Your task to perform on an android device: create a new album in the google photos Image 0: 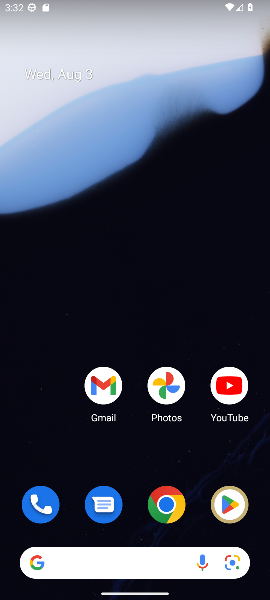
Step 0: click (168, 401)
Your task to perform on an android device: create a new album in the google photos Image 1: 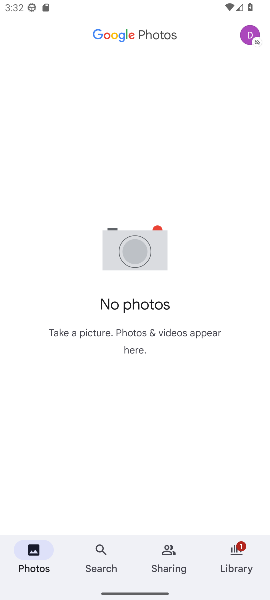
Step 1: click (233, 557)
Your task to perform on an android device: create a new album in the google photos Image 2: 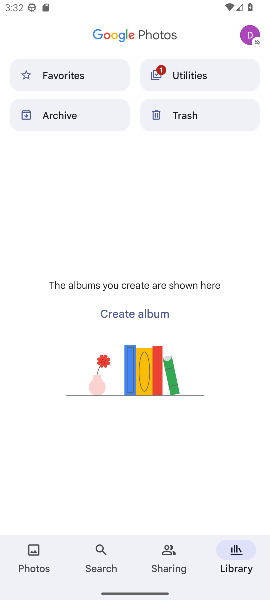
Step 2: click (141, 316)
Your task to perform on an android device: create a new album in the google photos Image 3: 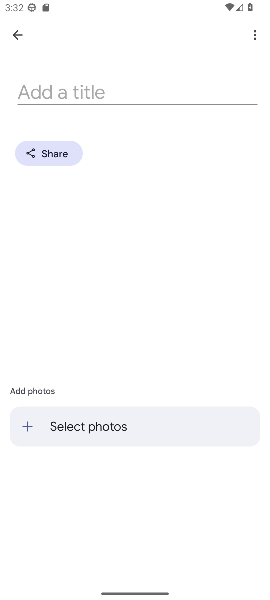
Step 3: click (84, 92)
Your task to perform on an android device: create a new album in the google photos Image 4: 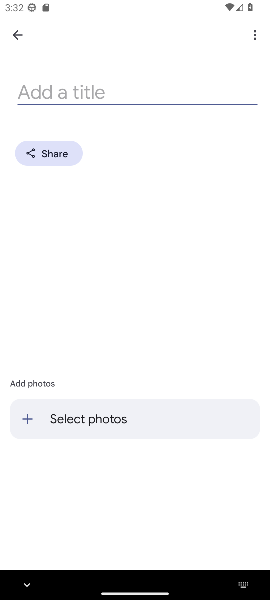
Step 4: click (23, 423)
Your task to perform on an android device: create a new album in the google photos Image 5: 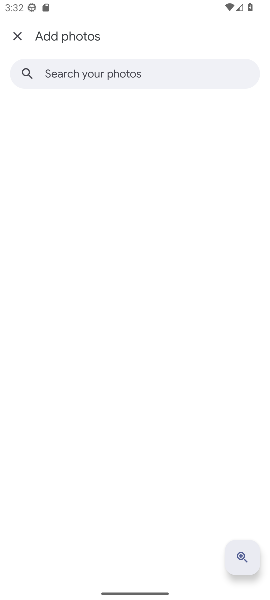
Step 5: task complete